Your task to perform on an android device: Search for Italian restaurants on Maps Image 0: 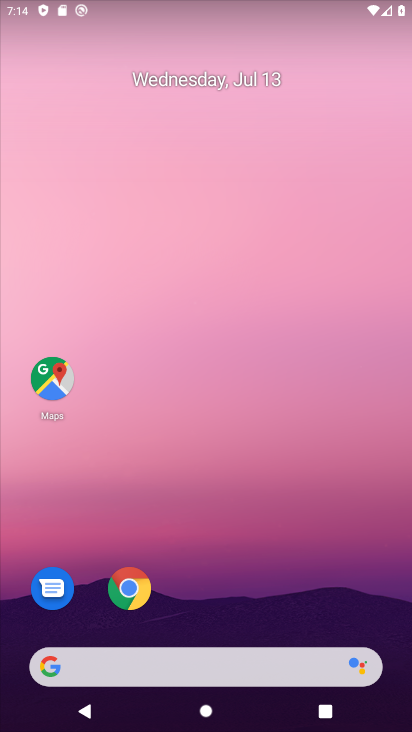
Step 0: click (44, 379)
Your task to perform on an android device: Search for Italian restaurants on Maps Image 1: 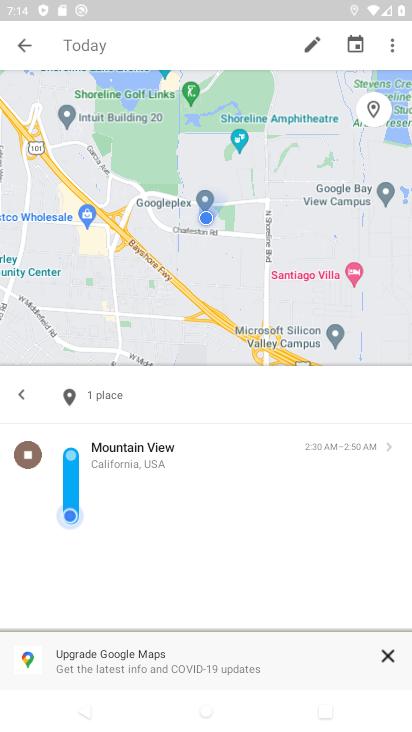
Step 1: click (21, 49)
Your task to perform on an android device: Search for Italian restaurants on Maps Image 2: 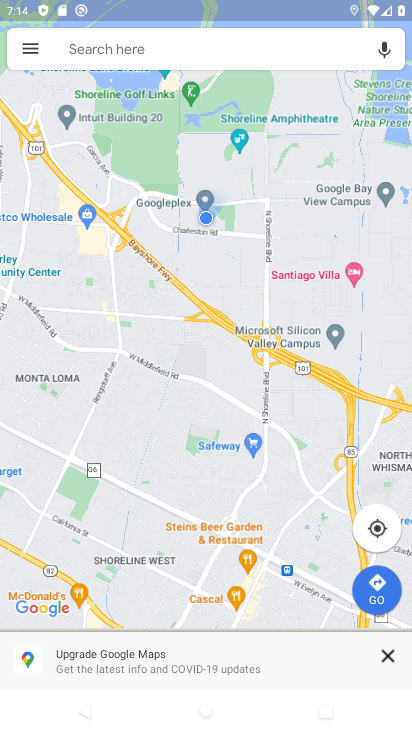
Step 2: click (96, 47)
Your task to perform on an android device: Search for Italian restaurants on Maps Image 3: 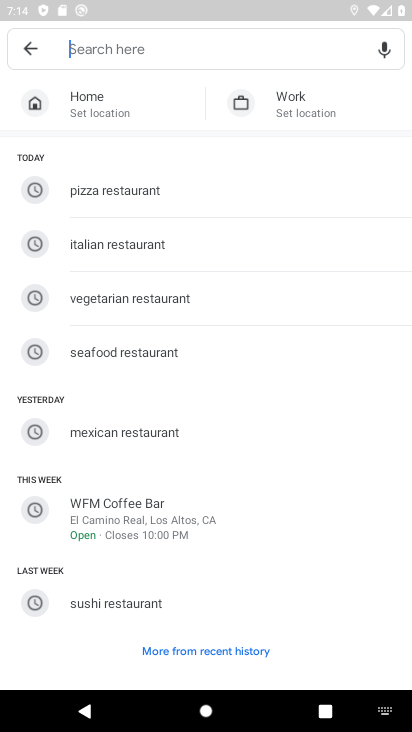
Step 3: click (148, 243)
Your task to perform on an android device: Search for Italian restaurants on Maps Image 4: 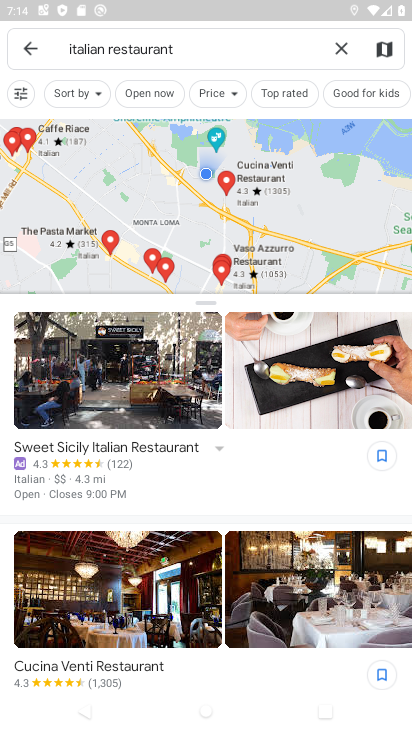
Step 4: task complete